Your task to perform on an android device: Go to settings Image 0: 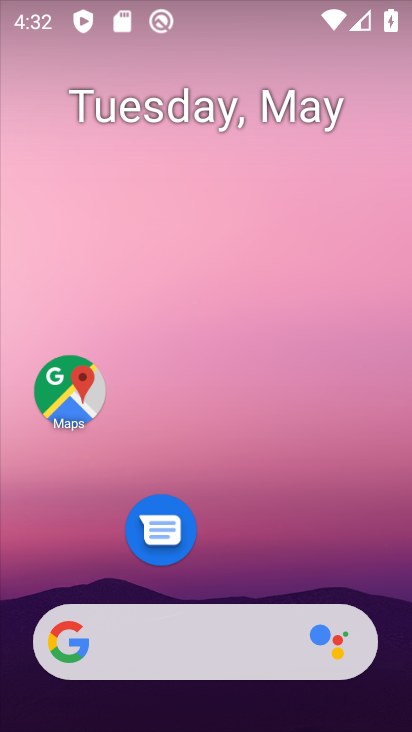
Step 0: drag from (276, 566) to (180, 26)
Your task to perform on an android device: Go to settings Image 1: 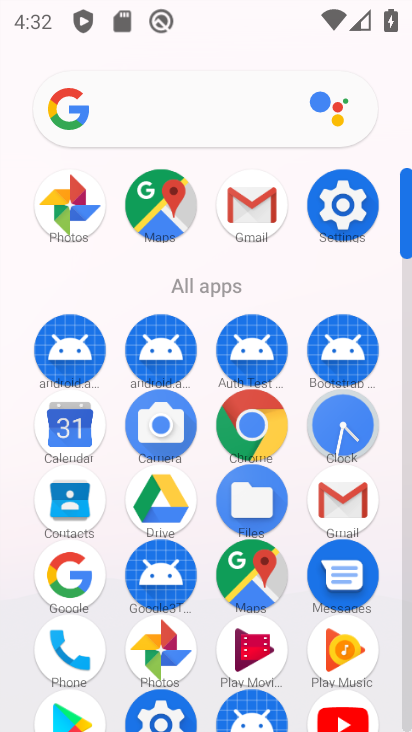
Step 1: click (341, 201)
Your task to perform on an android device: Go to settings Image 2: 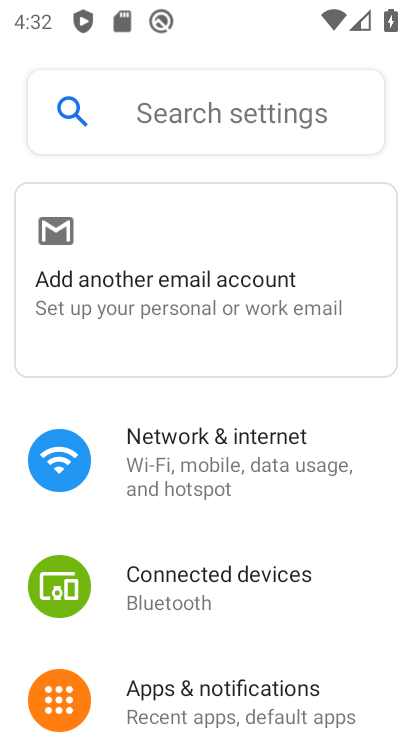
Step 2: task complete